Your task to perform on an android device: Open Google Chrome and click the shortcut for Amazon.com Image 0: 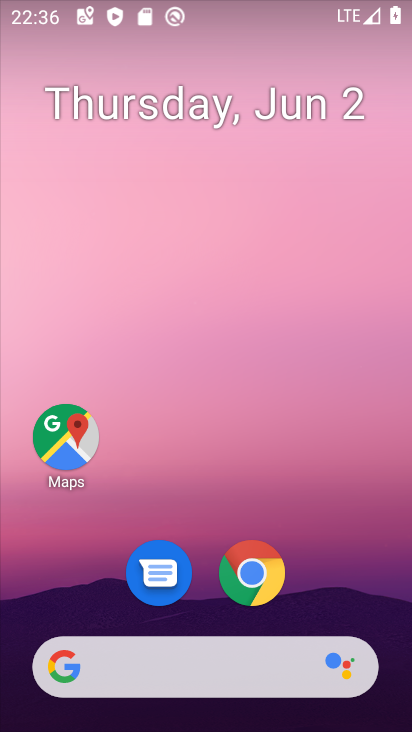
Step 0: click (240, 581)
Your task to perform on an android device: Open Google Chrome and click the shortcut for Amazon.com Image 1: 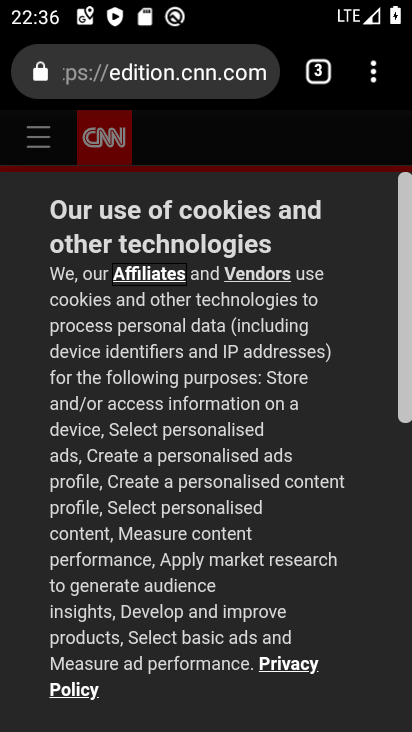
Step 1: click (375, 62)
Your task to perform on an android device: Open Google Chrome and click the shortcut for Amazon.com Image 2: 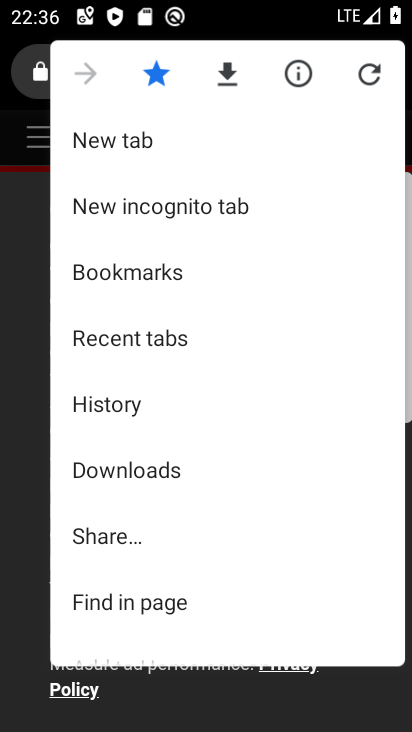
Step 2: click (111, 136)
Your task to perform on an android device: Open Google Chrome and click the shortcut for Amazon.com Image 3: 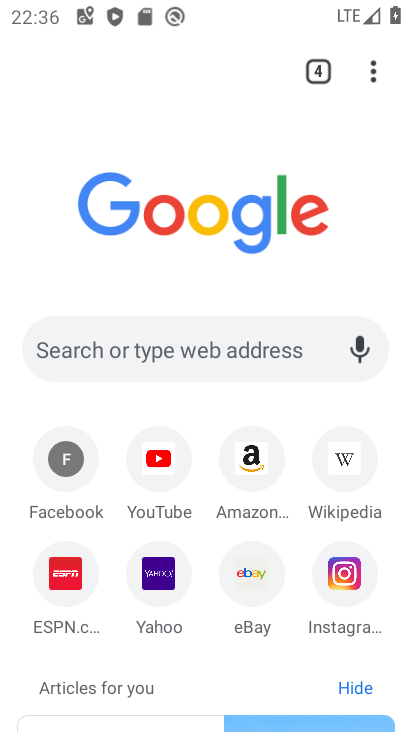
Step 3: click (258, 467)
Your task to perform on an android device: Open Google Chrome and click the shortcut for Amazon.com Image 4: 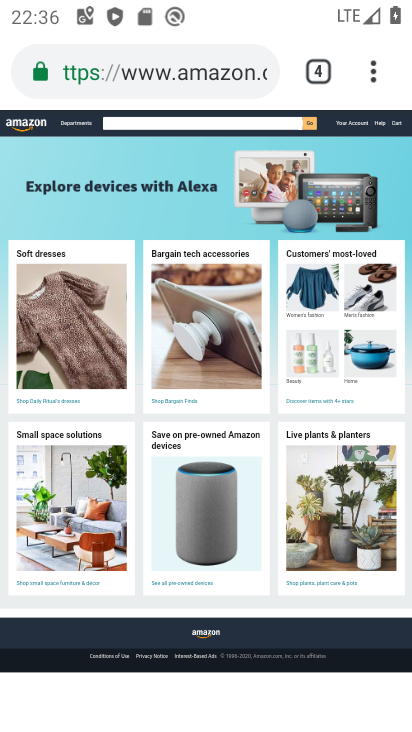
Step 4: task complete